Your task to perform on an android device: refresh tabs in the chrome app Image 0: 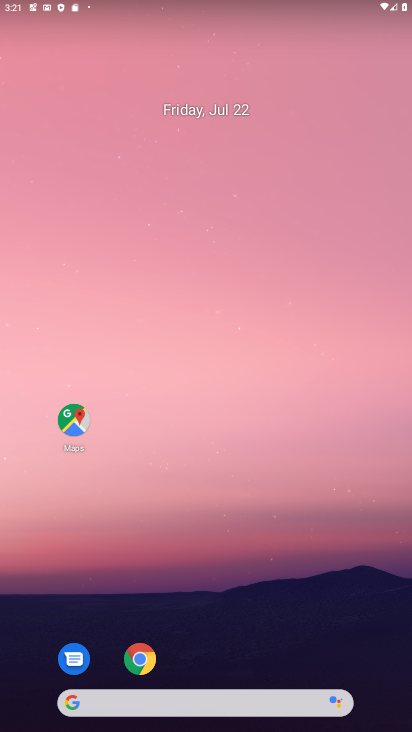
Step 0: click (132, 675)
Your task to perform on an android device: refresh tabs in the chrome app Image 1: 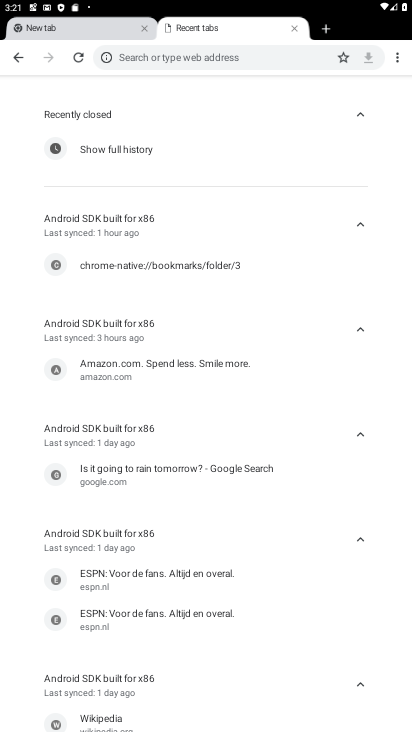
Step 1: click (401, 53)
Your task to perform on an android device: refresh tabs in the chrome app Image 2: 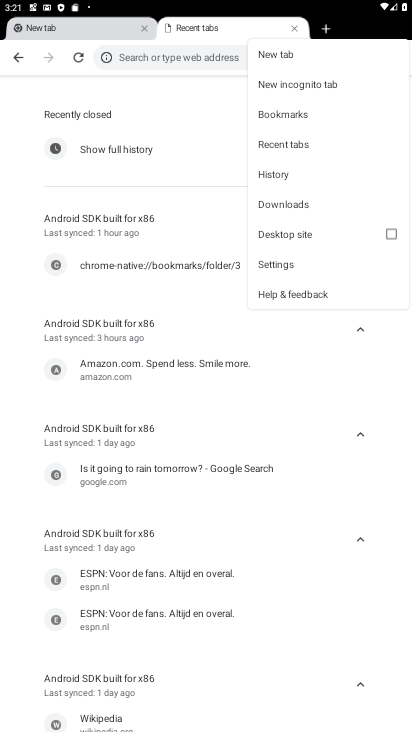
Step 2: click (77, 58)
Your task to perform on an android device: refresh tabs in the chrome app Image 3: 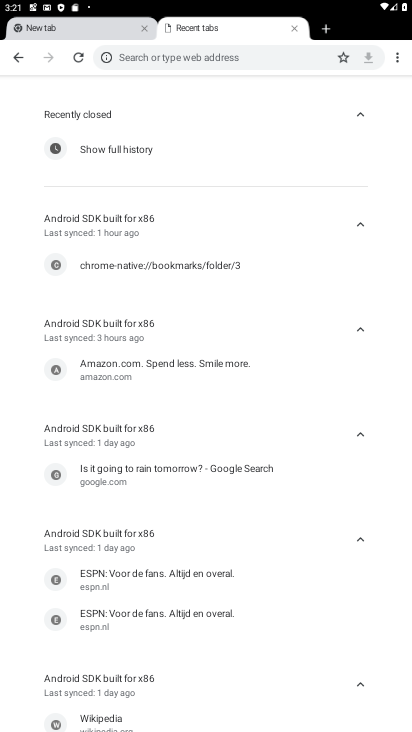
Step 3: click (77, 58)
Your task to perform on an android device: refresh tabs in the chrome app Image 4: 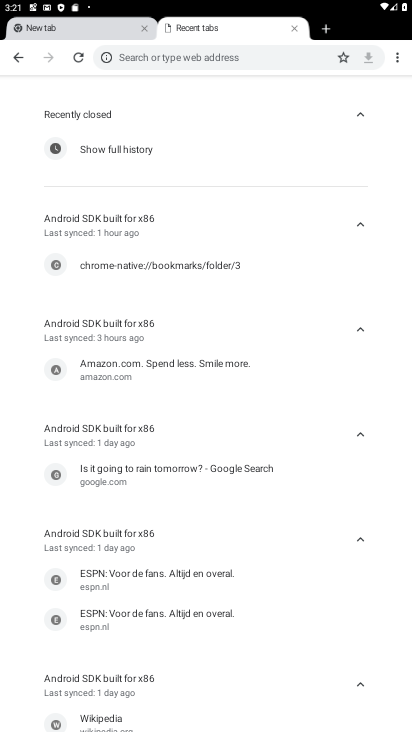
Step 4: click (77, 58)
Your task to perform on an android device: refresh tabs in the chrome app Image 5: 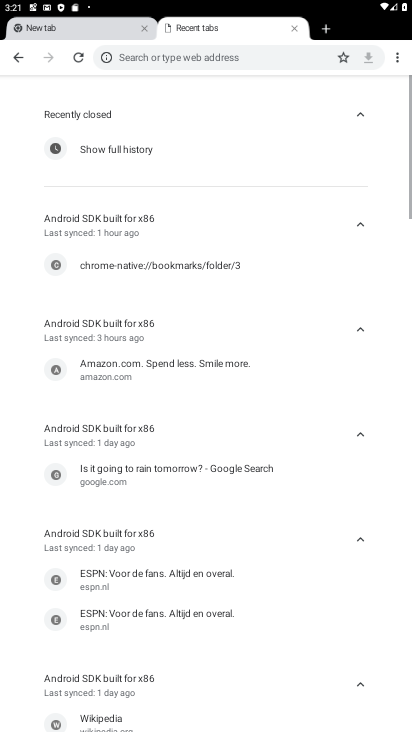
Step 5: task complete